Your task to perform on an android device: turn off picture-in-picture Image 0: 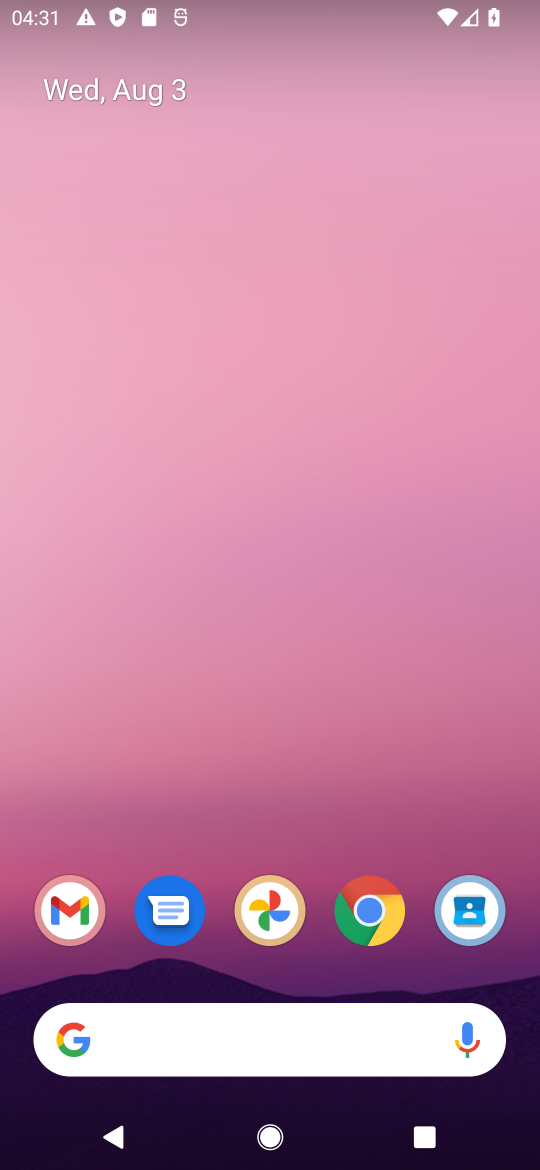
Step 0: press home button
Your task to perform on an android device: turn off picture-in-picture Image 1: 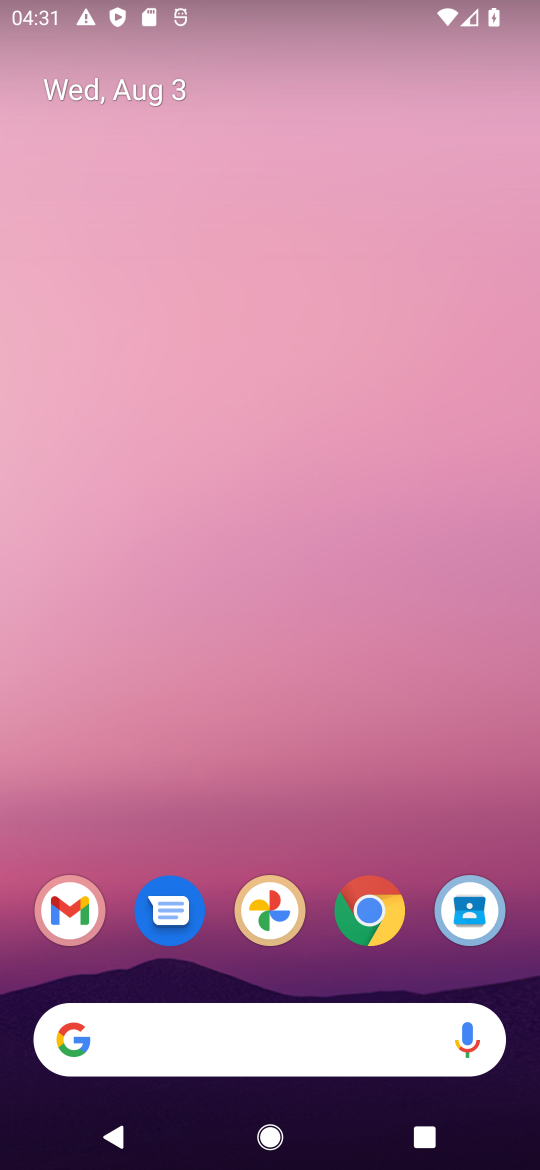
Step 1: click (370, 907)
Your task to perform on an android device: turn off picture-in-picture Image 2: 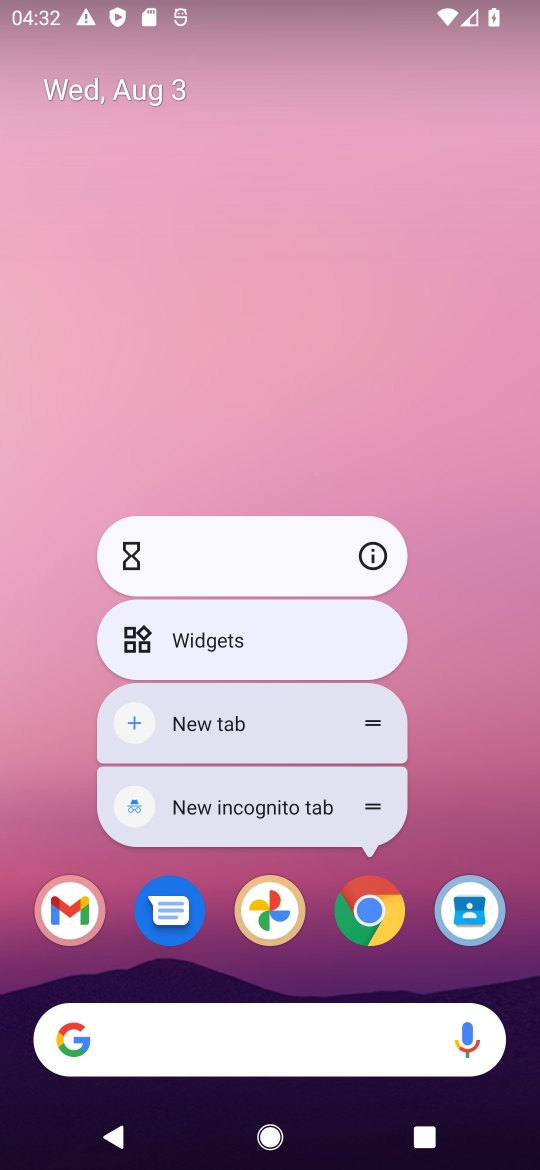
Step 2: click (374, 553)
Your task to perform on an android device: turn off picture-in-picture Image 3: 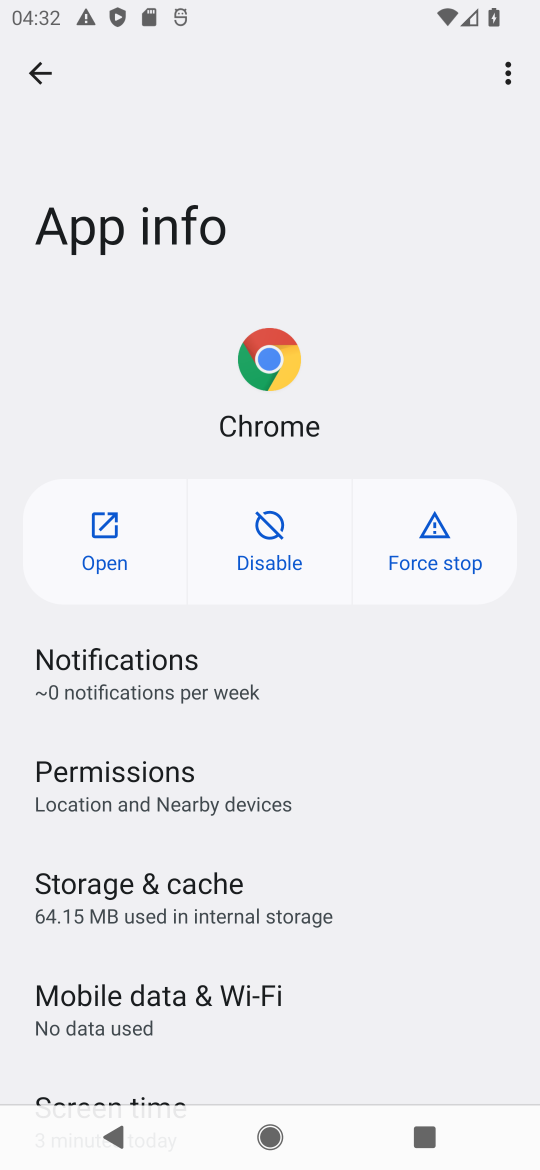
Step 3: drag from (258, 1027) to (322, 373)
Your task to perform on an android device: turn off picture-in-picture Image 4: 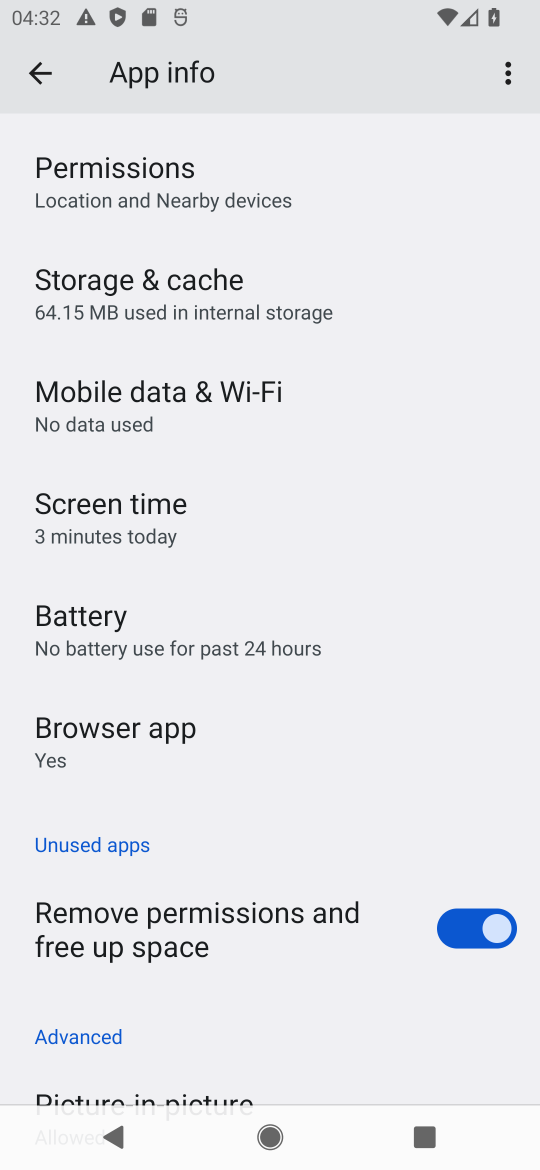
Step 4: drag from (206, 816) to (234, 275)
Your task to perform on an android device: turn off picture-in-picture Image 5: 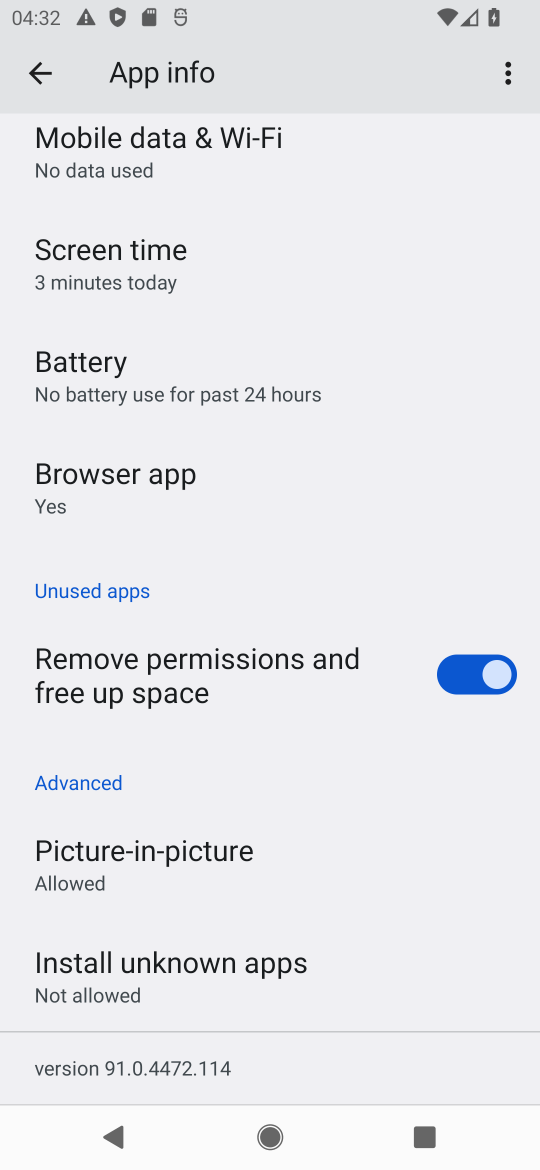
Step 5: click (192, 861)
Your task to perform on an android device: turn off picture-in-picture Image 6: 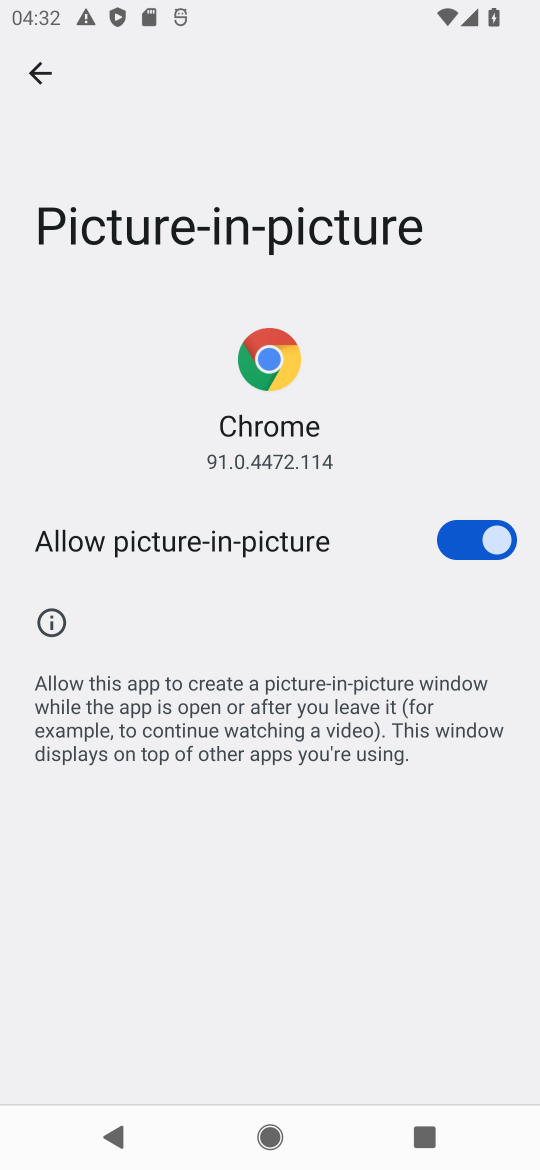
Step 6: click (474, 533)
Your task to perform on an android device: turn off picture-in-picture Image 7: 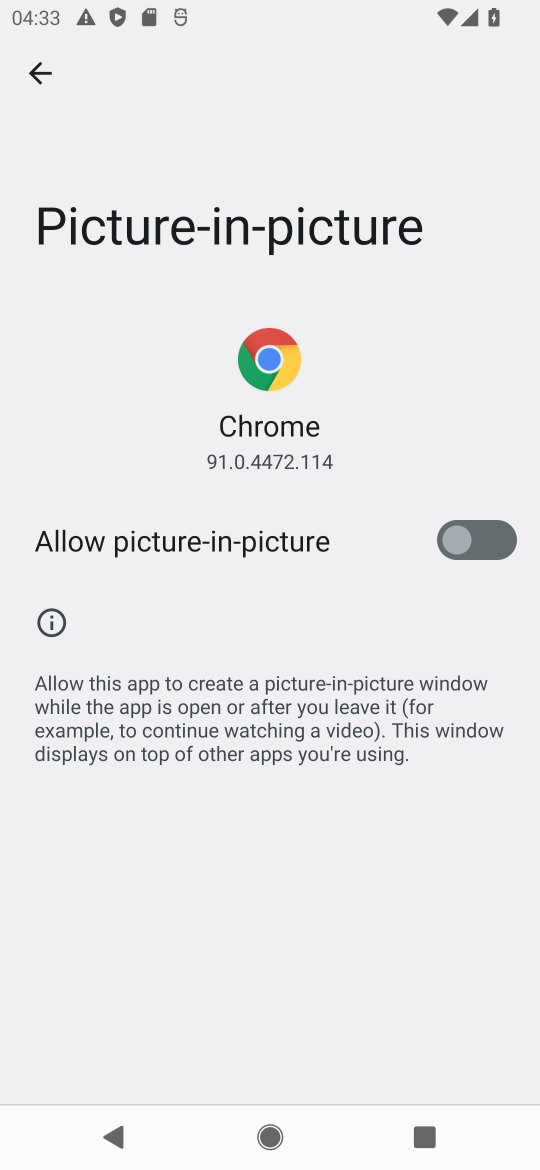
Step 7: task complete